Your task to perform on an android device: check the backup settings in the google photos Image 0: 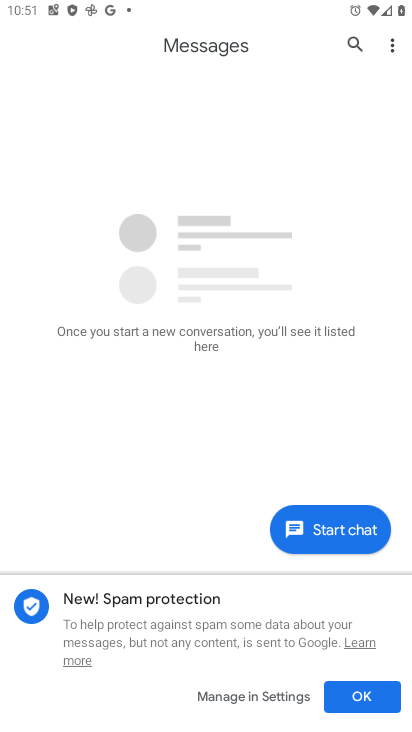
Step 0: press home button
Your task to perform on an android device: check the backup settings in the google photos Image 1: 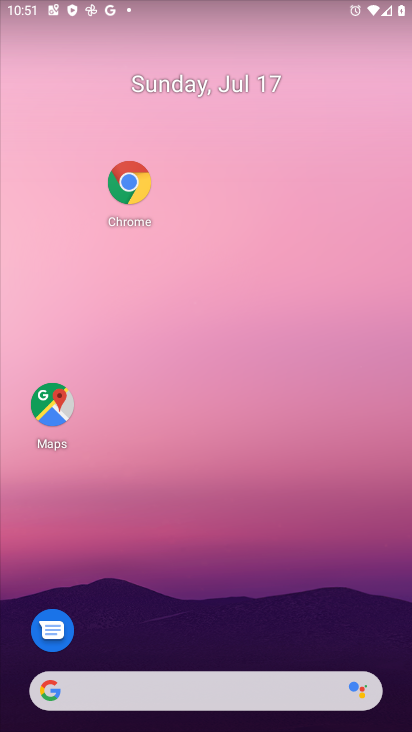
Step 1: drag from (206, 364) to (170, 103)
Your task to perform on an android device: check the backup settings in the google photos Image 2: 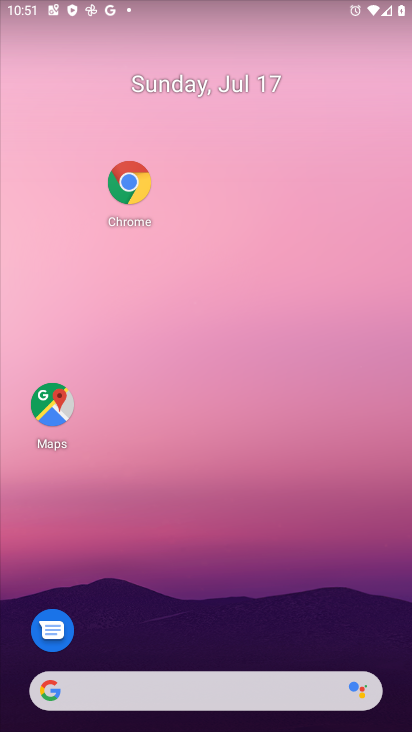
Step 2: drag from (176, 568) to (225, 163)
Your task to perform on an android device: check the backup settings in the google photos Image 3: 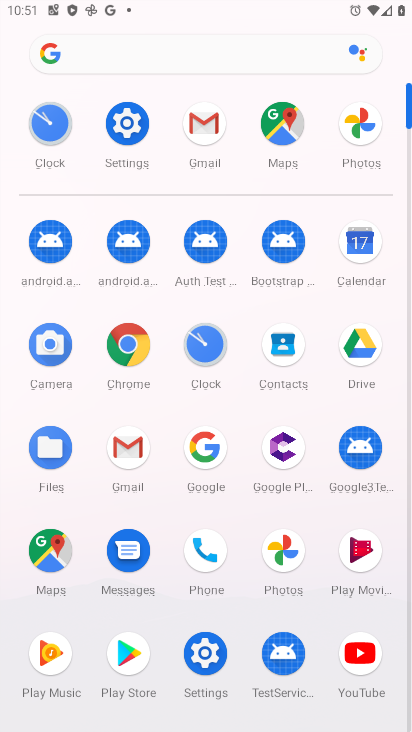
Step 3: click (285, 564)
Your task to perform on an android device: check the backup settings in the google photos Image 4: 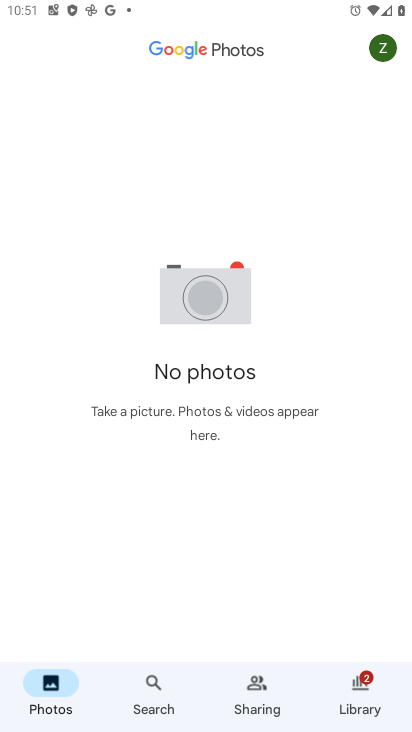
Step 4: click (378, 43)
Your task to perform on an android device: check the backup settings in the google photos Image 5: 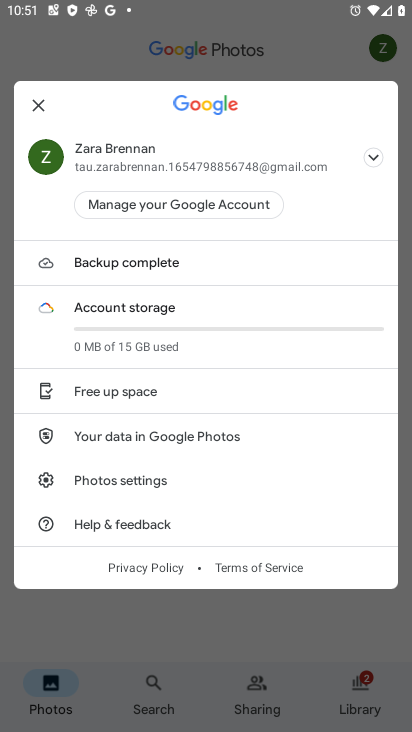
Step 5: click (96, 476)
Your task to perform on an android device: check the backup settings in the google photos Image 6: 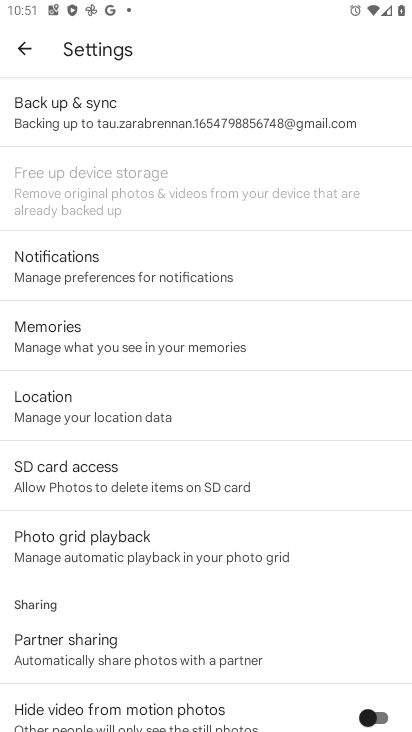
Step 6: click (88, 109)
Your task to perform on an android device: check the backup settings in the google photos Image 7: 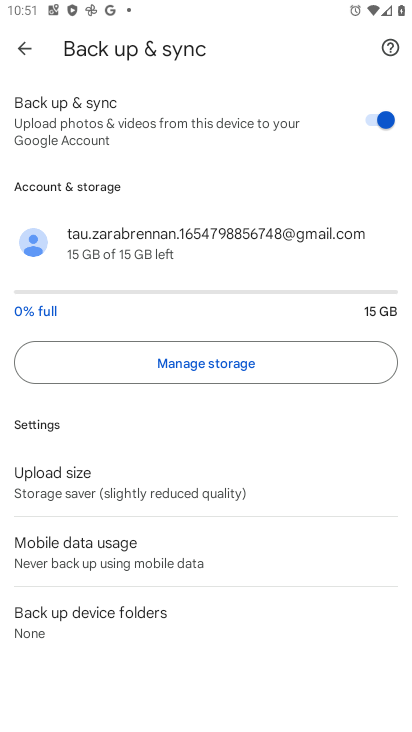
Step 7: task complete